Your task to perform on an android device: open app "DoorDash - Food Delivery" Image 0: 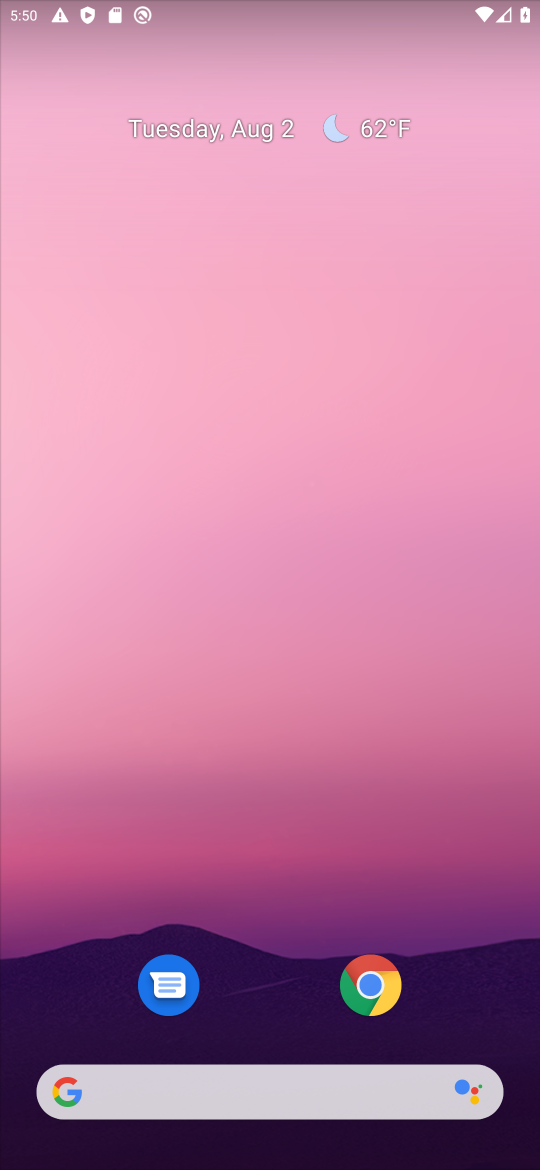
Step 0: click (216, 209)
Your task to perform on an android device: open app "DoorDash - Food Delivery" Image 1: 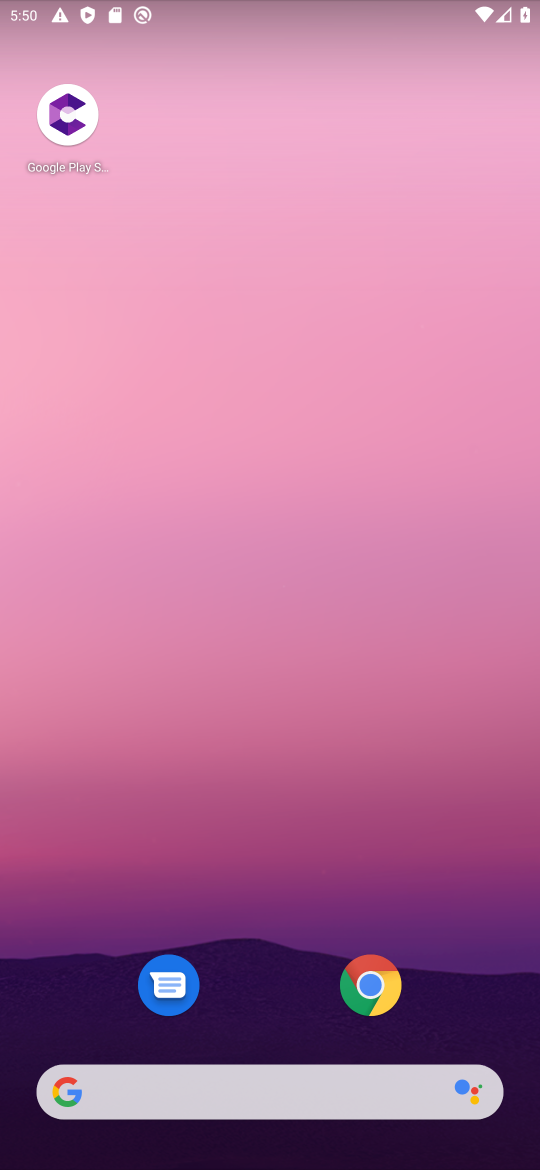
Step 1: drag from (247, 949) to (247, 400)
Your task to perform on an android device: open app "DoorDash - Food Delivery" Image 2: 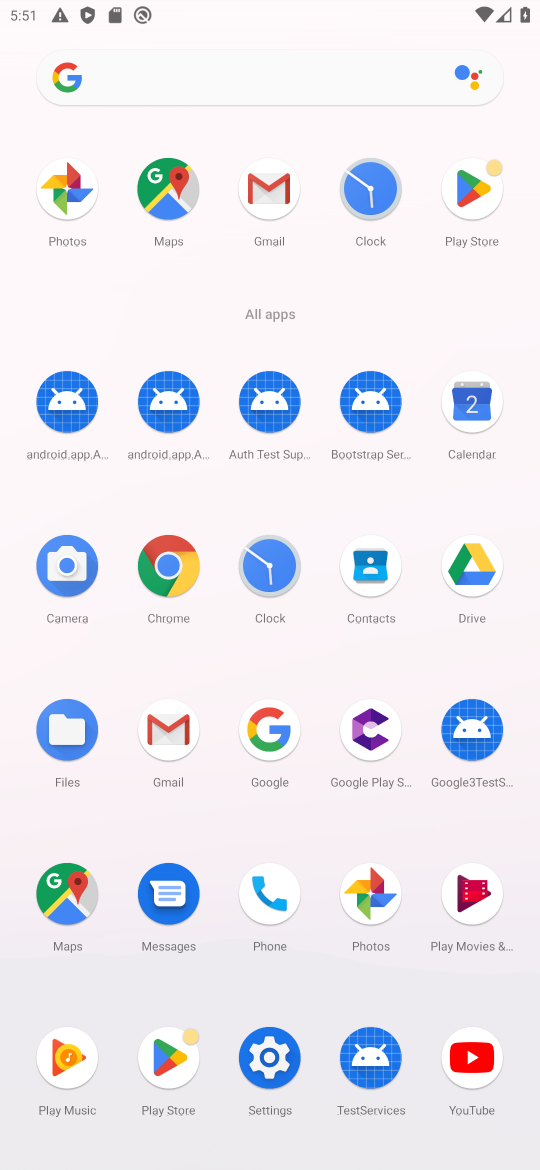
Step 2: click (447, 190)
Your task to perform on an android device: open app "DoorDash - Food Delivery" Image 3: 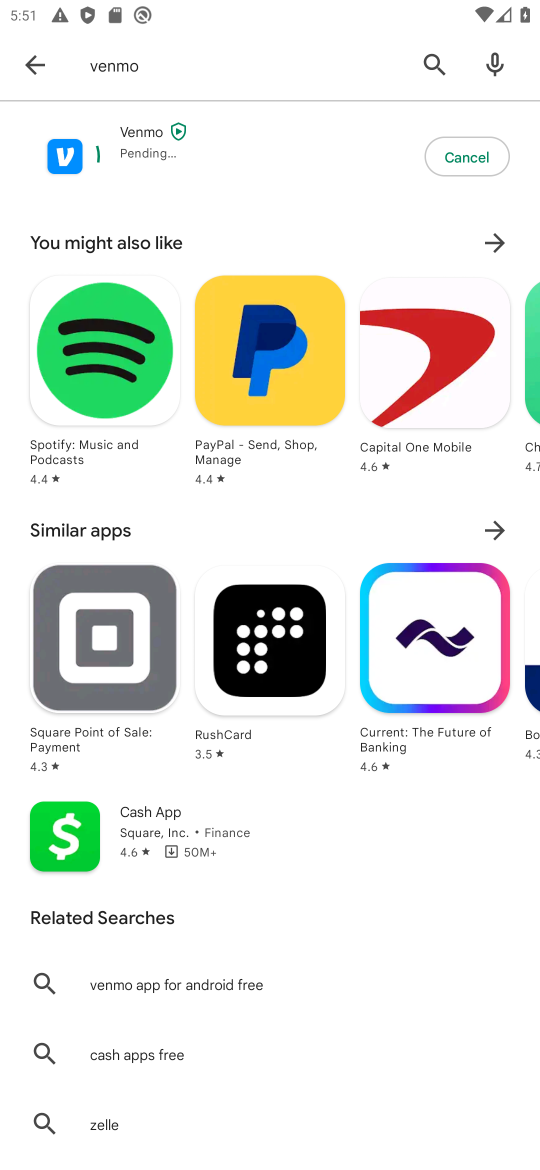
Step 3: click (422, 60)
Your task to perform on an android device: open app "DoorDash - Food Delivery" Image 4: 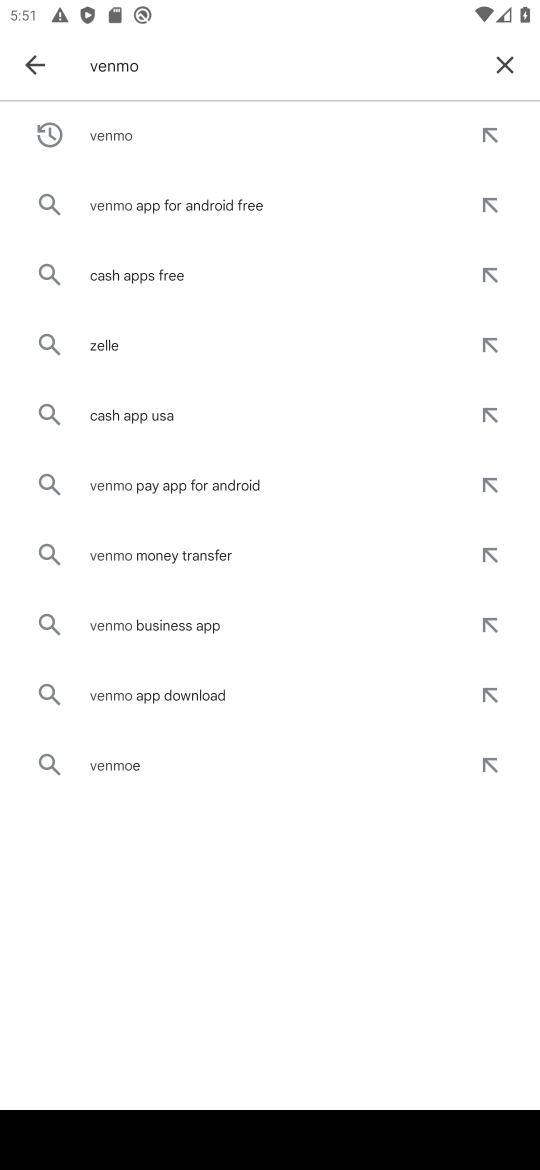
Step 4: click (504, 65)
Your task to perform on an android device: open app "DoorDash - Food Delivery" Image 5: 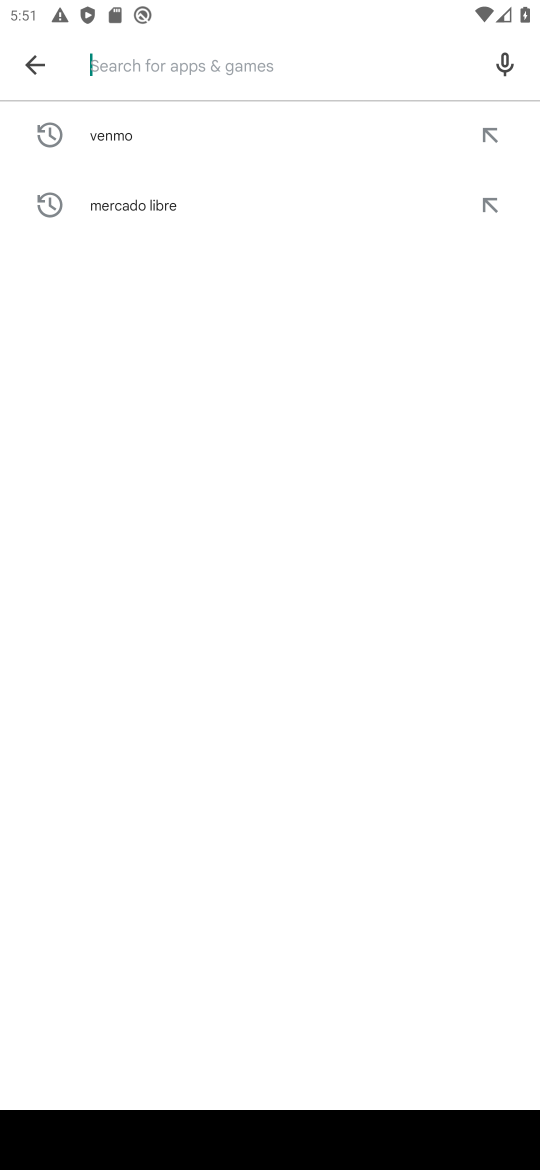
Step 5: type "DoorDash - Food Deliver"
Your task to perform on an android device: open app "DoorDash - Food Delivery" Image 6: 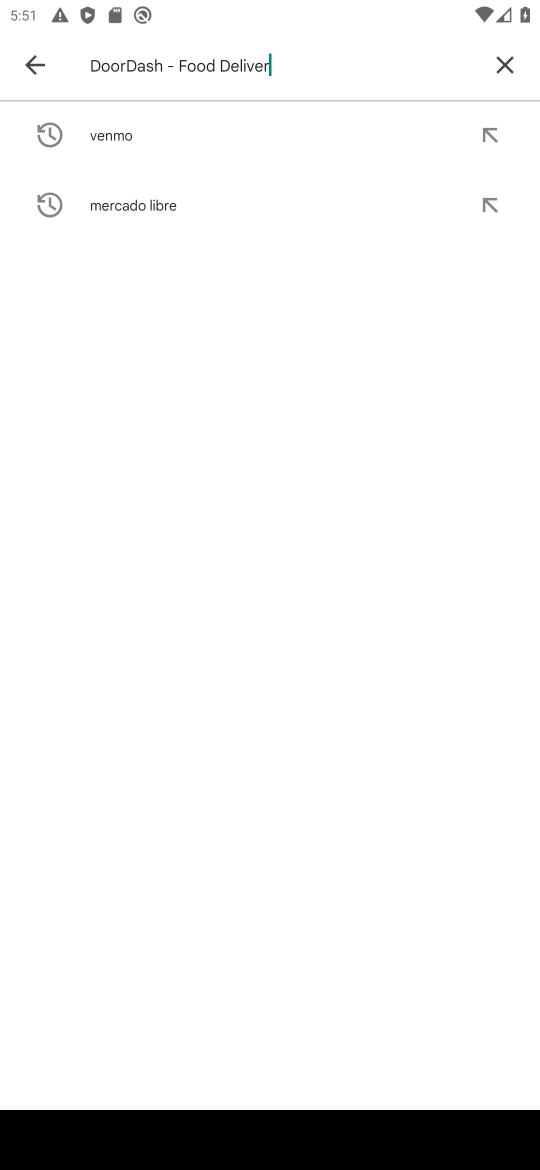
Step 6: type ""
Your task to perform on an android device: open app "DoorDash - Food Delivery" Image 7: 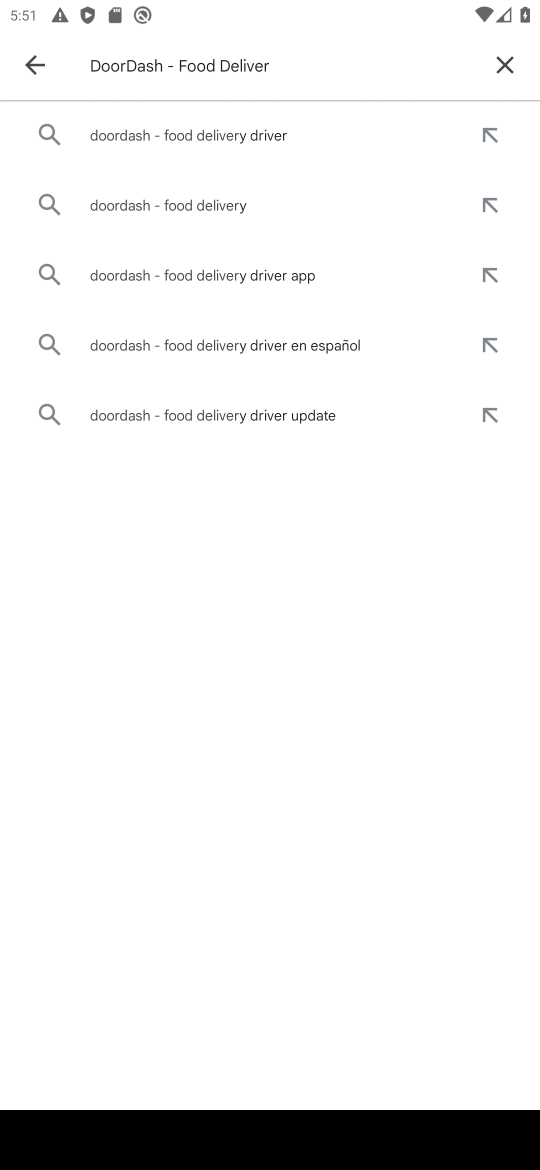
Step 7: click (199, 122)
Your task to perform on an android device: open app "DoorDash - Food Delivery" Image 8: 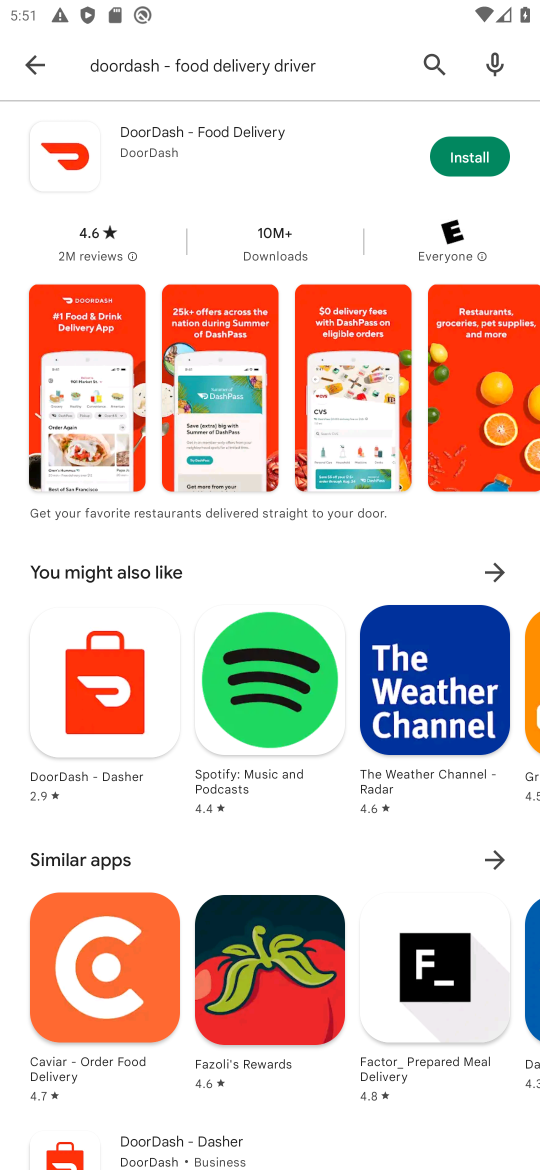
Step 8: task complete